Your task to perform on an android device: Open calendar and show me the first week of next month Image 0: 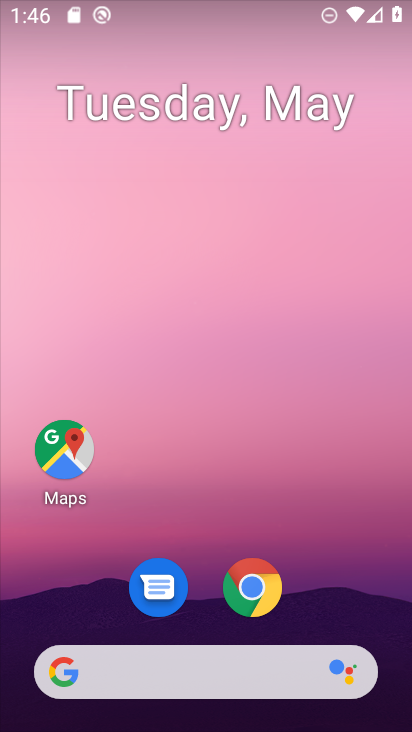
Step 0: click (240, 111)
Your task to perform on an android device: Open calendar and show me the first week of next month Image 1: 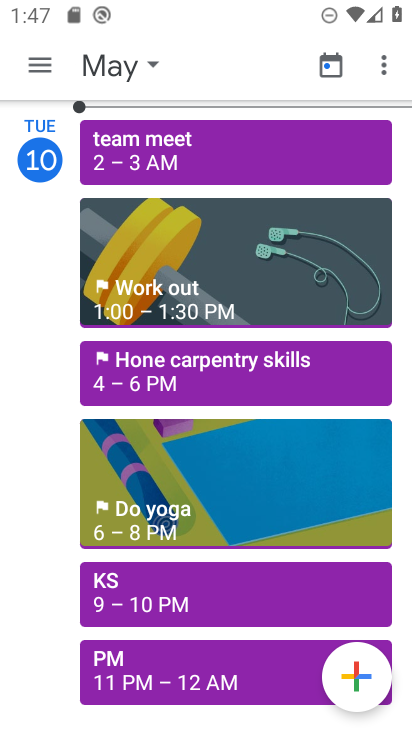
Step 1: click (123, 546)
Your task to perform on an android device: Open calendar and show me the first week of next month Image 2: 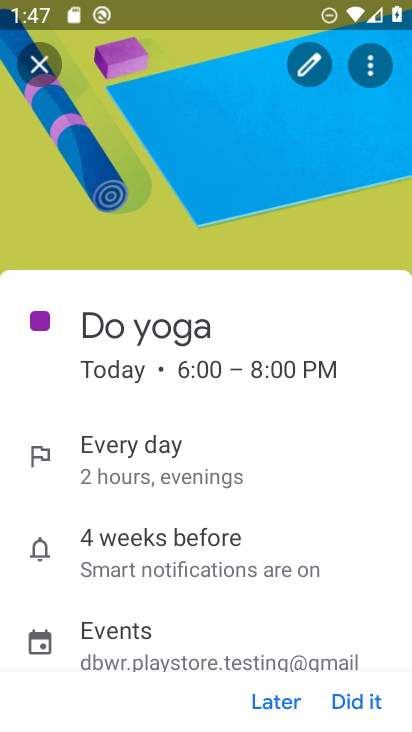
Step 2: click (60, 53)
Your task to perform on an android device: Open calendar and show me the first week of next month Image 3: 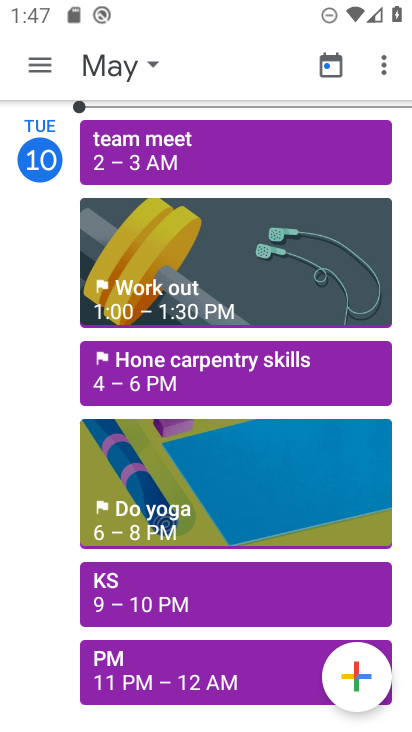
Step 3: click (162, 64)
Your task to perform on an android device: Open calendar and show me the first week of next month Image 4: 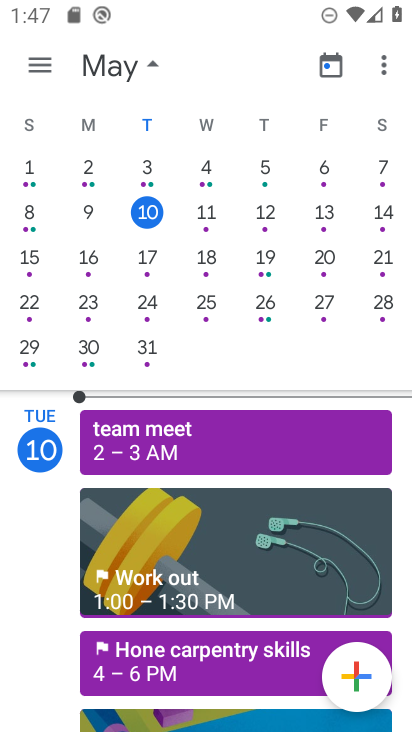
Step 4: task complete